Your task to perform on an android device: uninstall "Adobe Acrobat Reader: Edit PDF" Image 0: 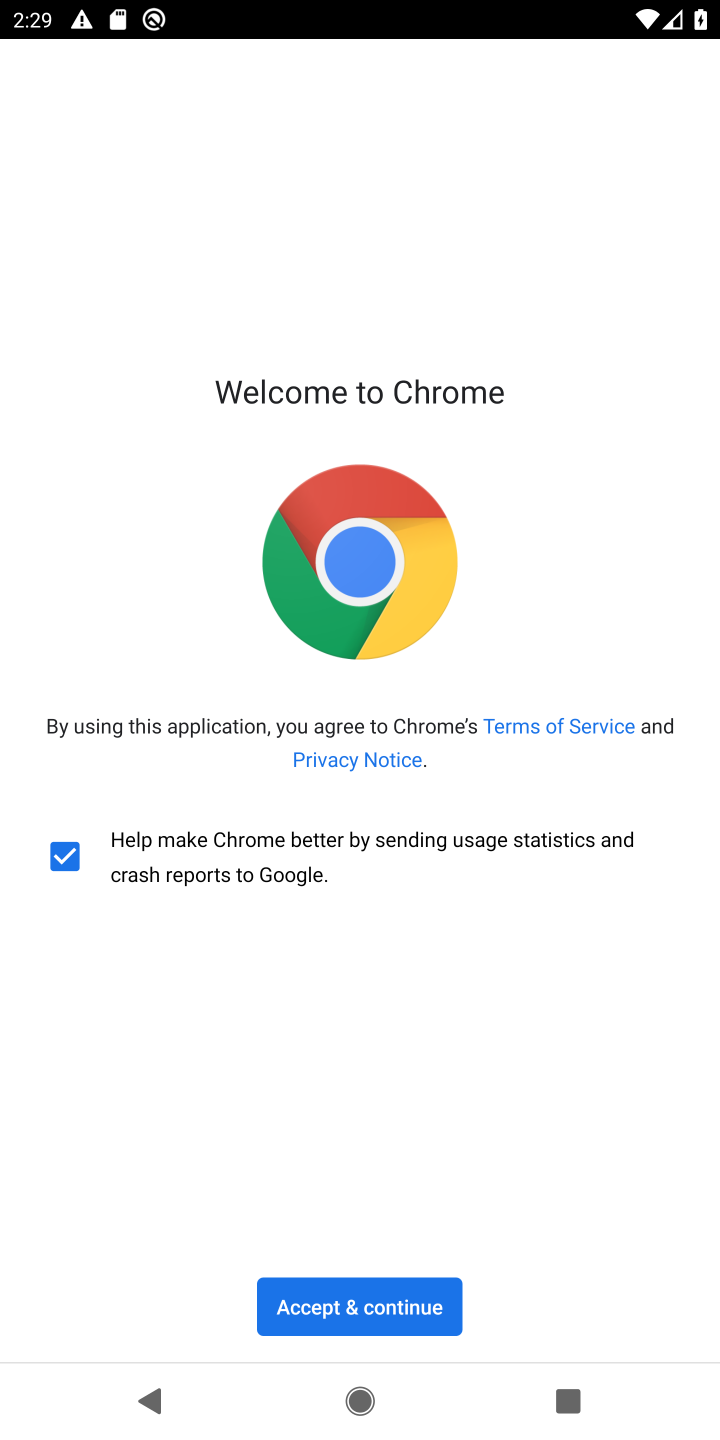
Step 0: press home button
Your task to perform on an android device: uninstall "Adobe Acrobat Reader: Edit PDF" Image 1: 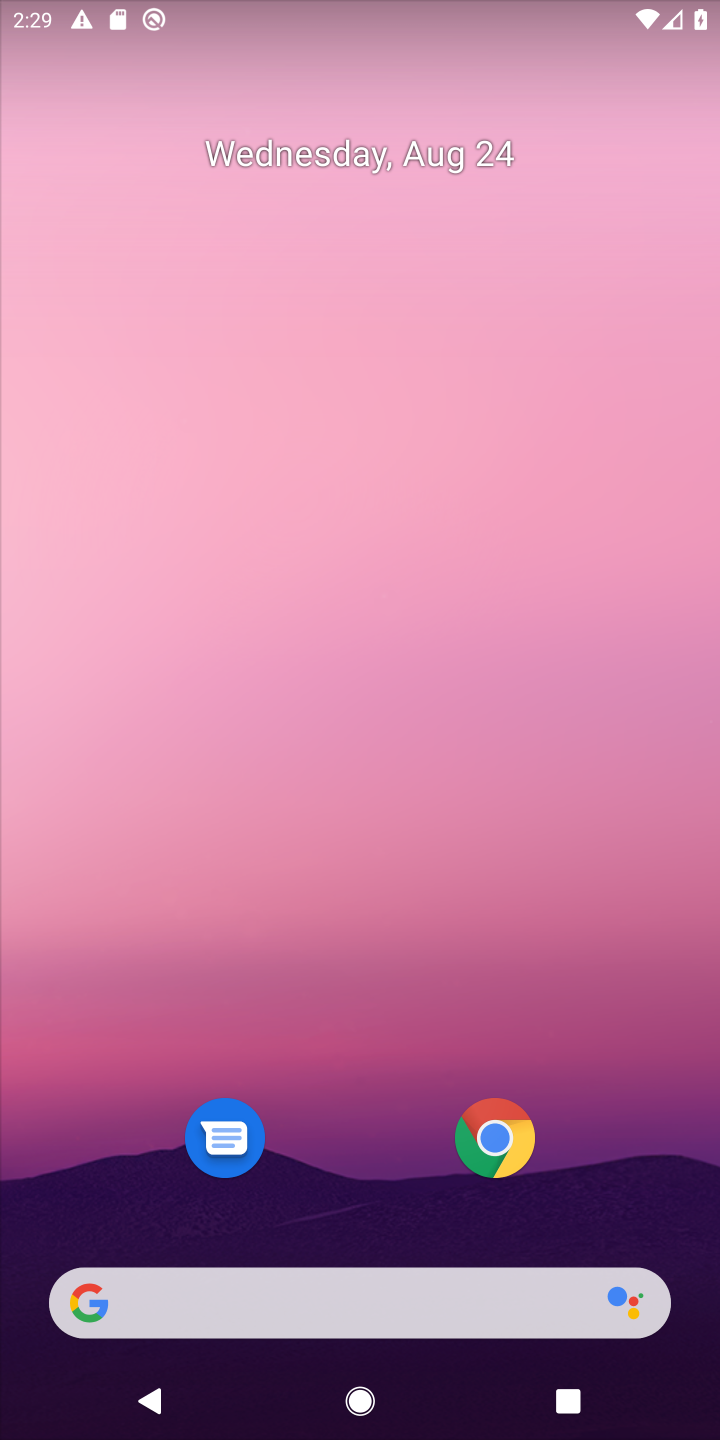
Step 1: drag from (398, 1222) to (393, 245)
Your task to perform on an android device: uninstall "Adobe Acrobat Reader: Edit PDF" Image 2: 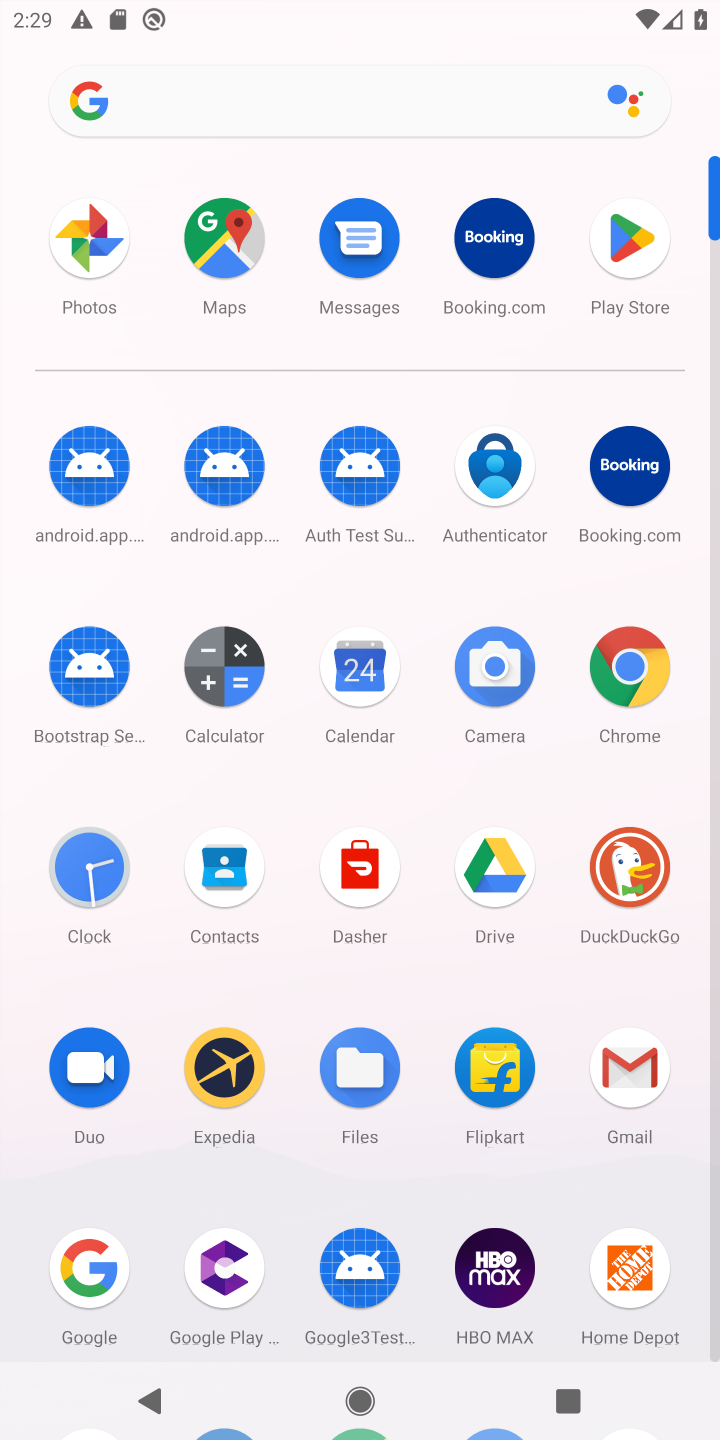
Step 2: click (637, 265)
Your task to perform on an android device: uninstall "Adobe Acrobat Reader: Edit PDF" Image 3: 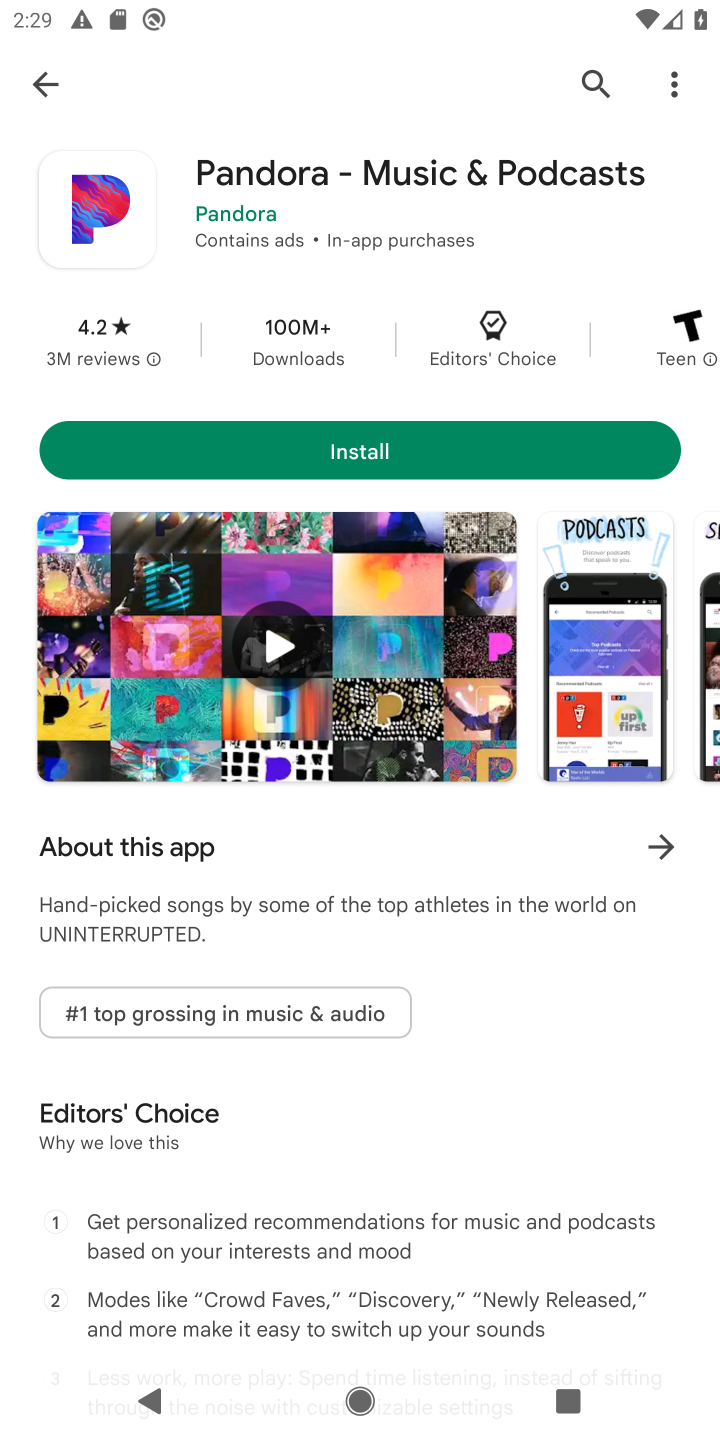
Step 3: click (598, 92)
Your task to perform on an android device: uninstall "Adobe Acrobat Reader: Edit PDF" Image 4: 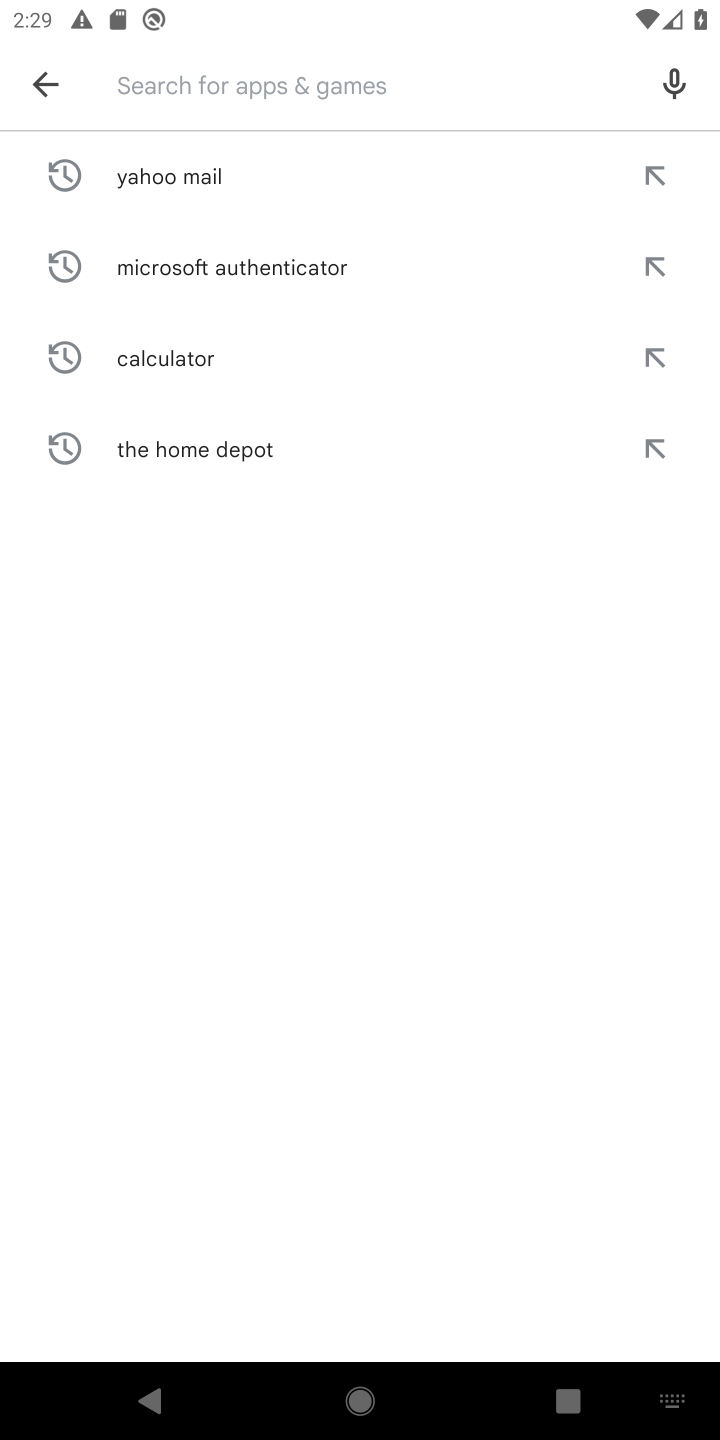
Step 4: type "Adobe Acrobat Reader: Edit PDF"
Your task to perform on an android device: uninstall "Adobe Acrobat Reader: Edit PDF" Image 5: 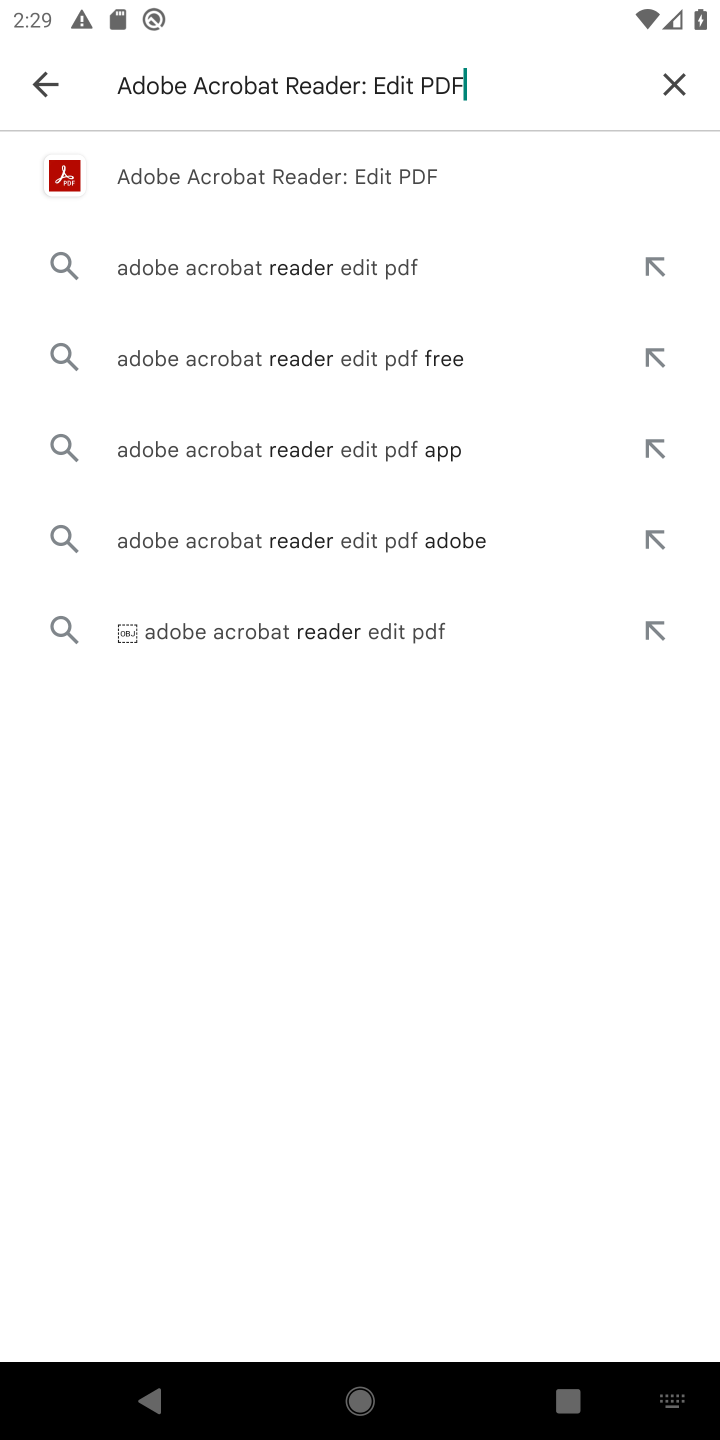
Step 5: click (390, 177)
Your task to perform on an android device: uninstall "Adobe Acrobat Reader: Edit PDF" Image 6: 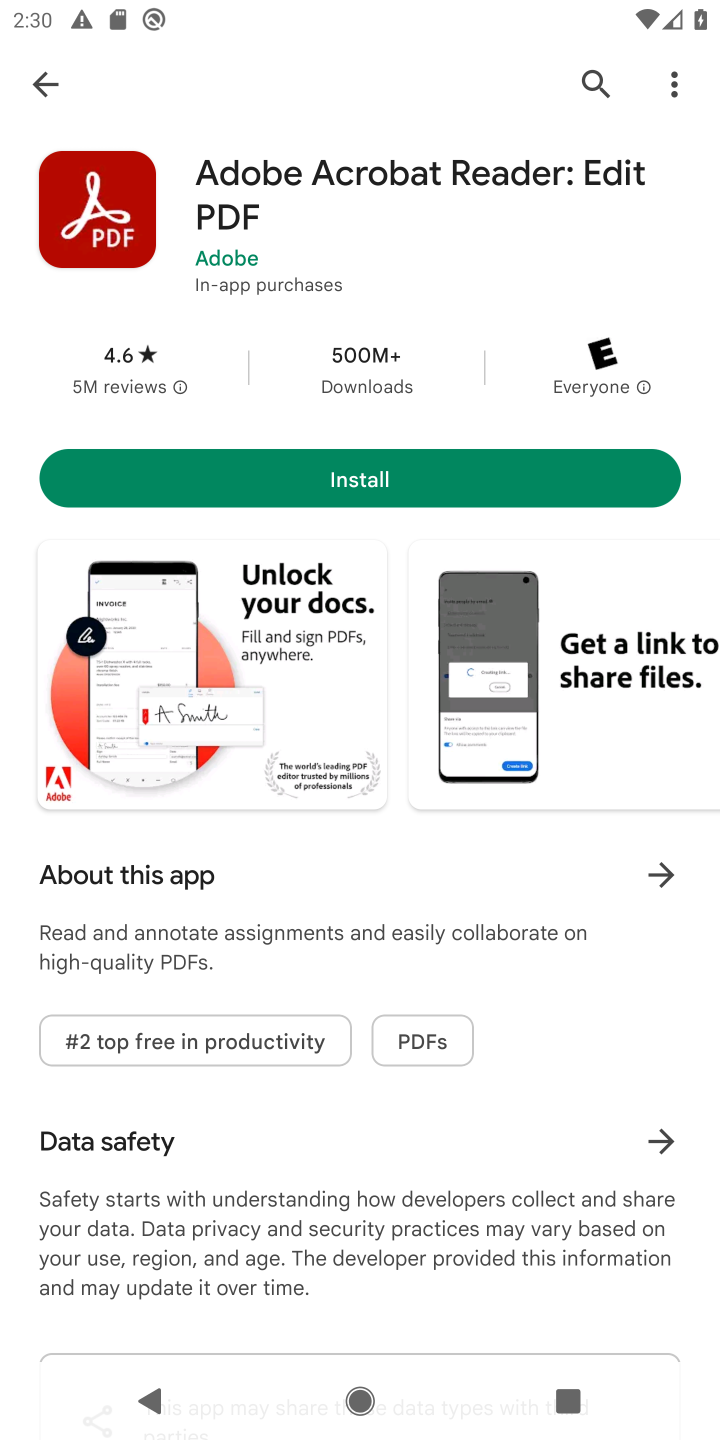
Step 6: task complete